Your task to perform on an android device: Open the phone app and click the voicemail tab. Image 0: 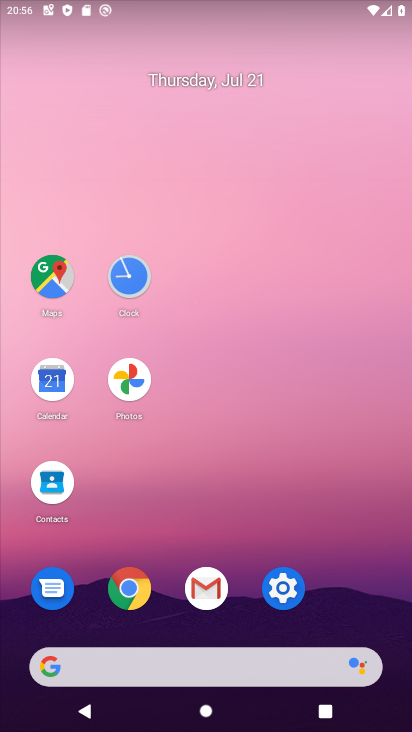
Step 0: drag from (217, 477) to (176, 87)
Your task to perform on an android device: Open the phone app and click the voicemail tab. Image 1: 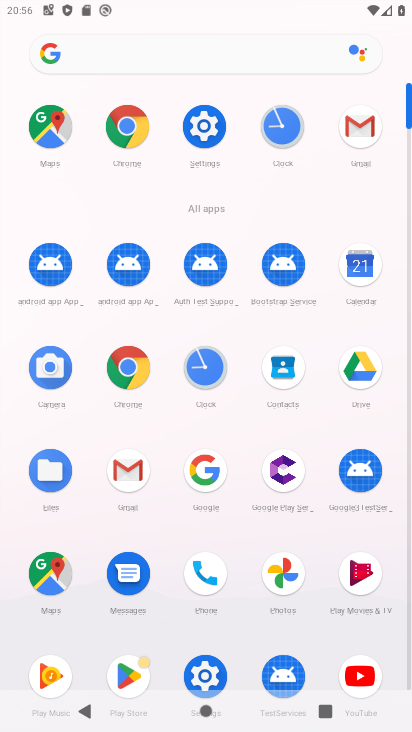
Step 1: click (206, 574)
Your task to perform on an android device: Open the phone app and click the voicemail tab. Image 2: 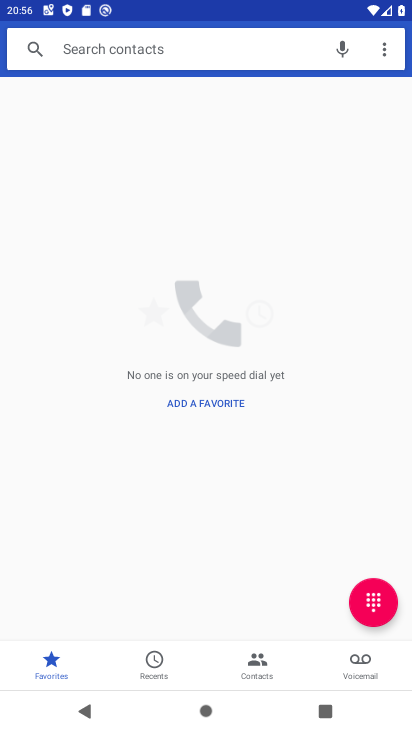
Step 2: click (361, 663)
Your task to perform on an android device: Open the phone app and click the voicemail tab. Image 3: 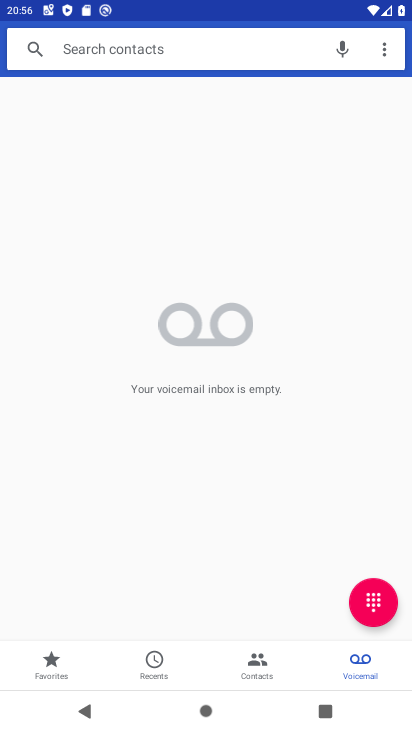
Step 3: task complete